Your task to perform on an android device: open app "The Home Depot" (install if not already installed) and go to login screen Image 0: 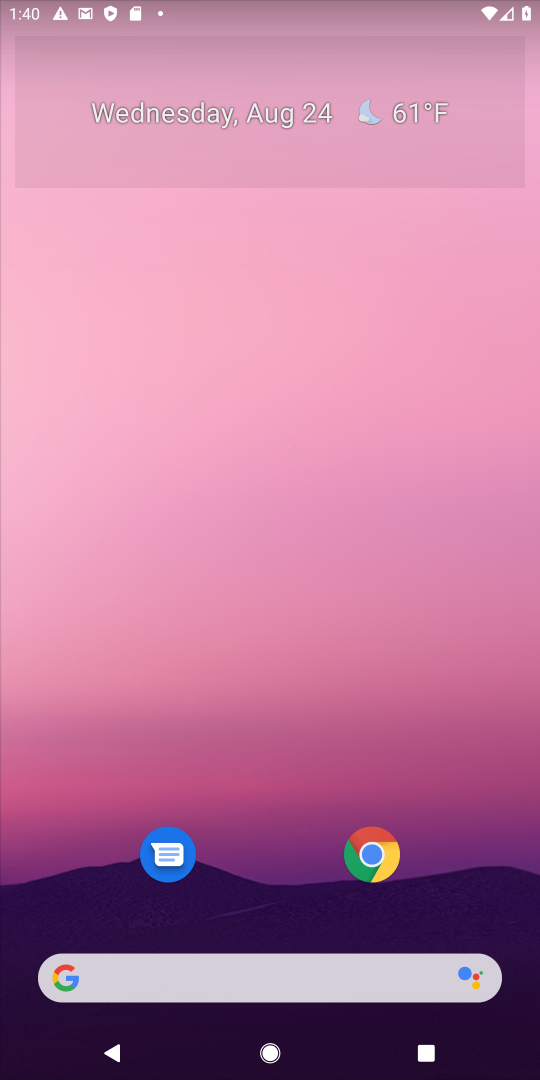
Step 0: press home button
Your task to perform on an android device: open app "The Home Depot" (install if not already installed) and go to login screen Image 1: 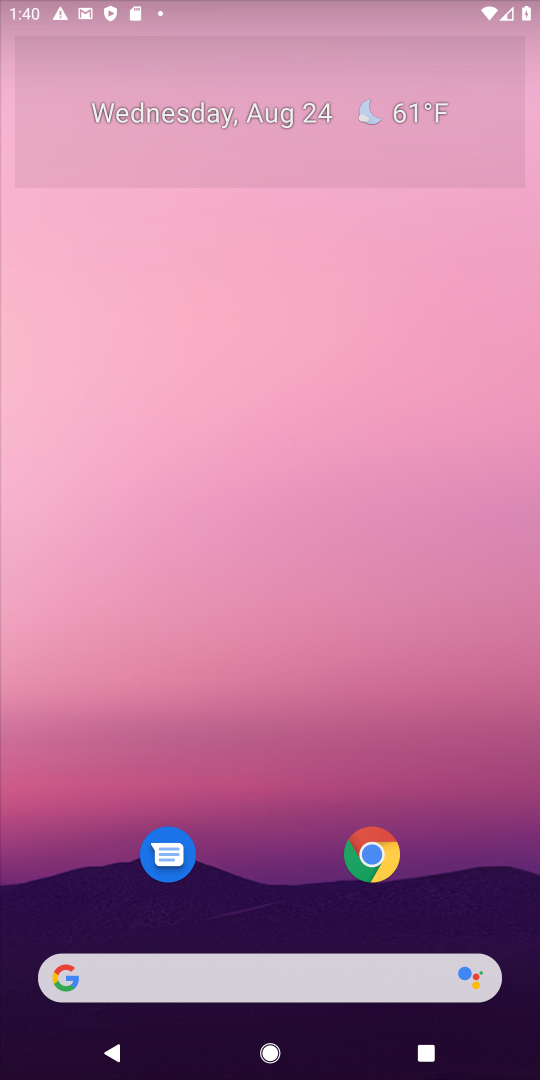
Step 1: drag from (446, 834) to (423, 153)
Your task to perform on an android device: open app "The Home Depot" (install if not already installed) and go to login screen Image 2: 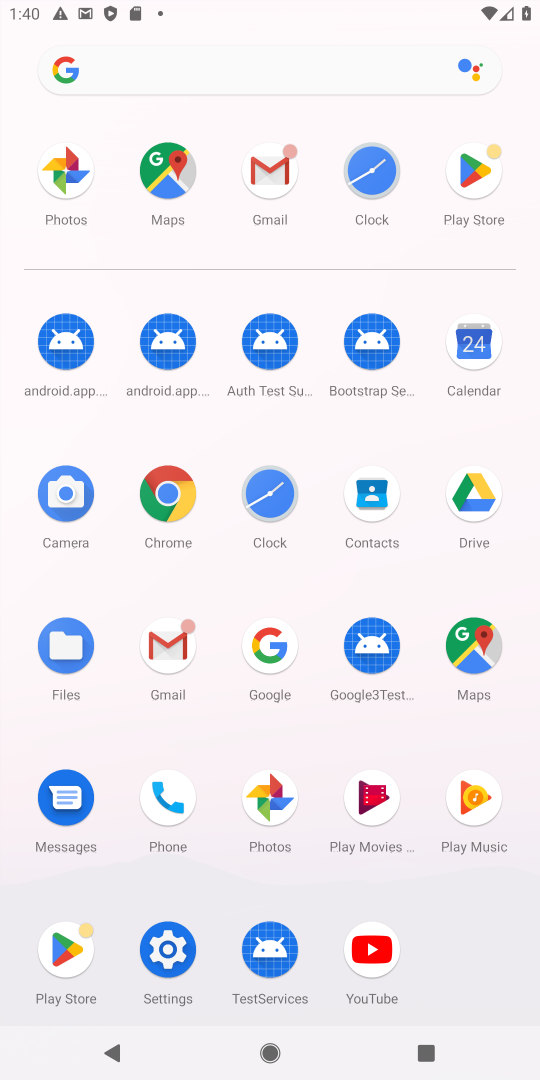
Step 2: click (490, 178)
Your task to perform on an android device: open app "The Home Depot" (install if not already installed) and go to login screen Image 3: 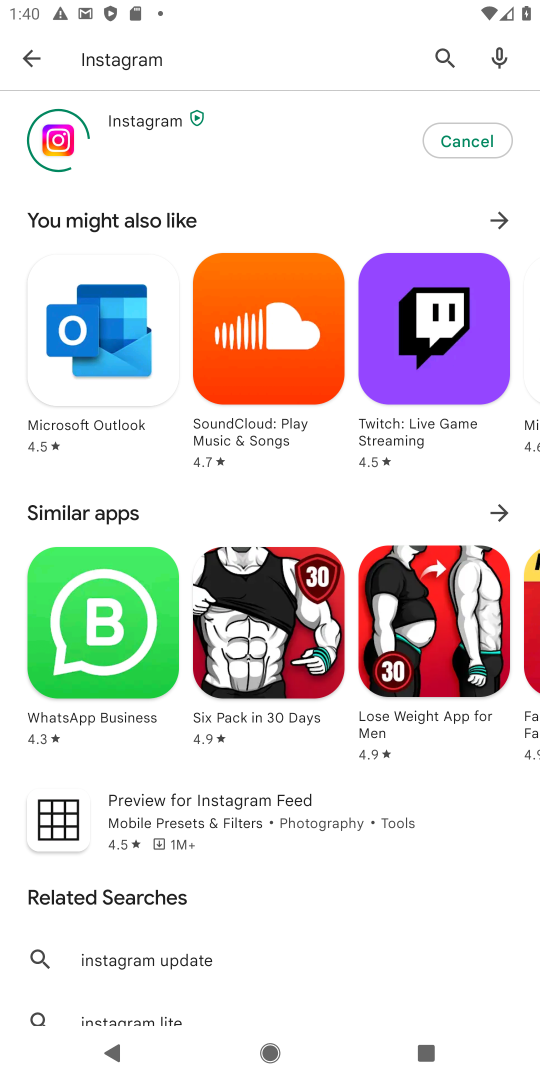
Step 3: press back button
Your task to perform on an android device: open app "The Home Depot" (install if not already installed) and go to login screen Image 4: 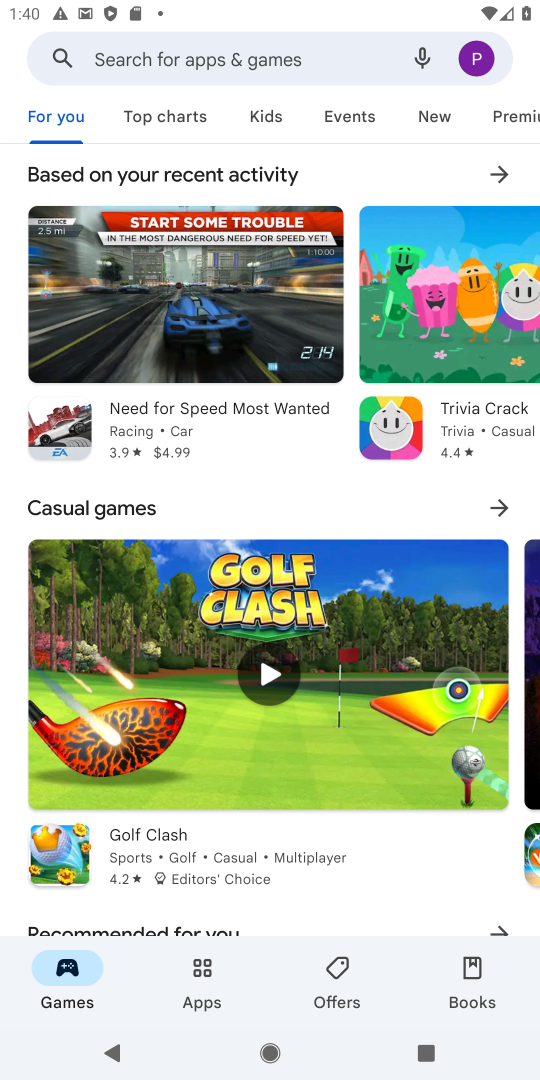
Step 4: click (207, 54)
Your task to perform on an android device: open app "The Home Depot" (install if not already installed) and go to login screen Image 5: 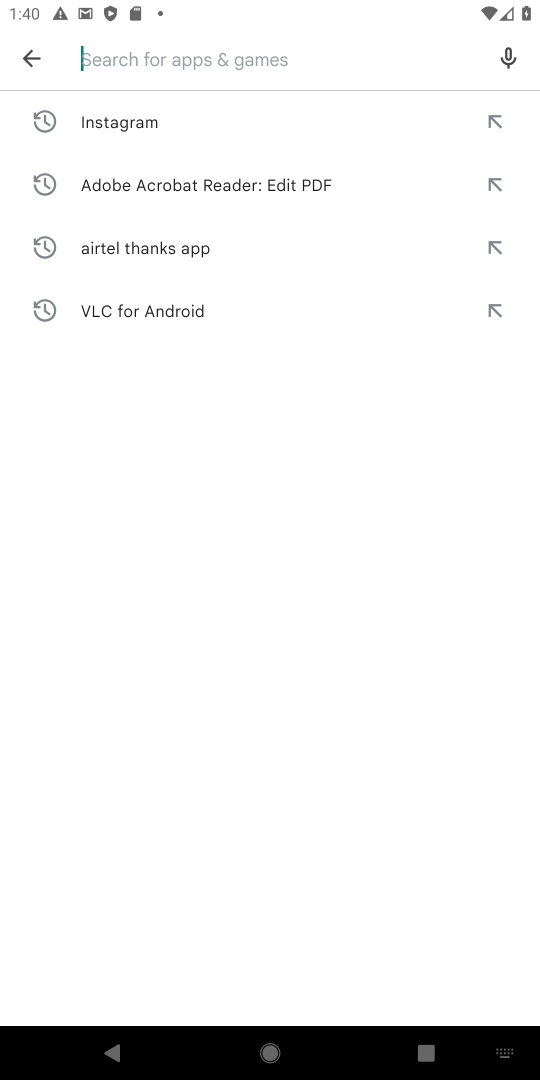
Step 5: type "The Home Depot"
Your task to perform on an android device: open app "The Home Depot" (install if not already installed) and go to login screen Image 6: 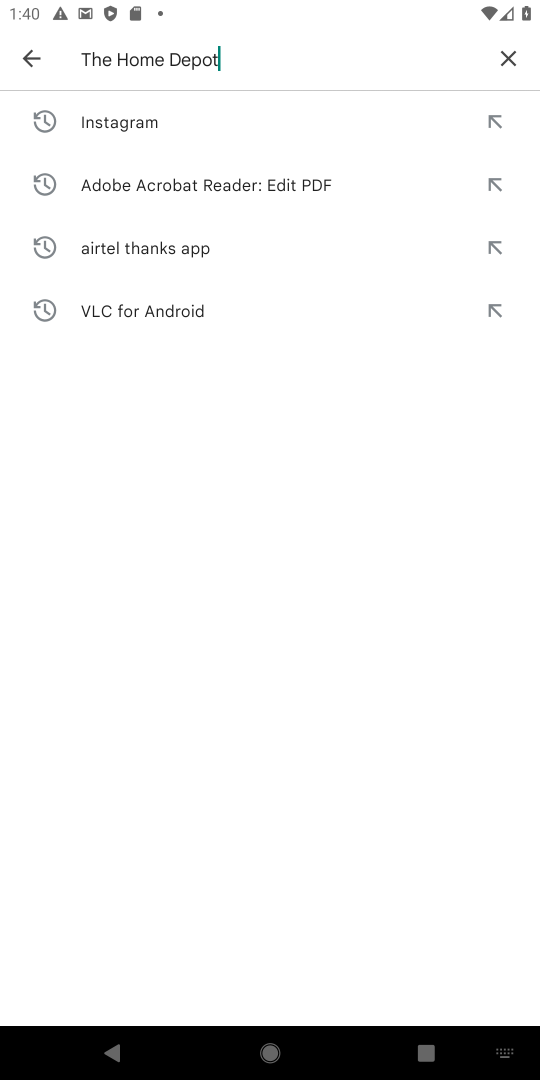
Step 6: press enter
Your task to perform on an android device: open app "The Home Depot" (install if not already installed) and go to login screen Image 7: 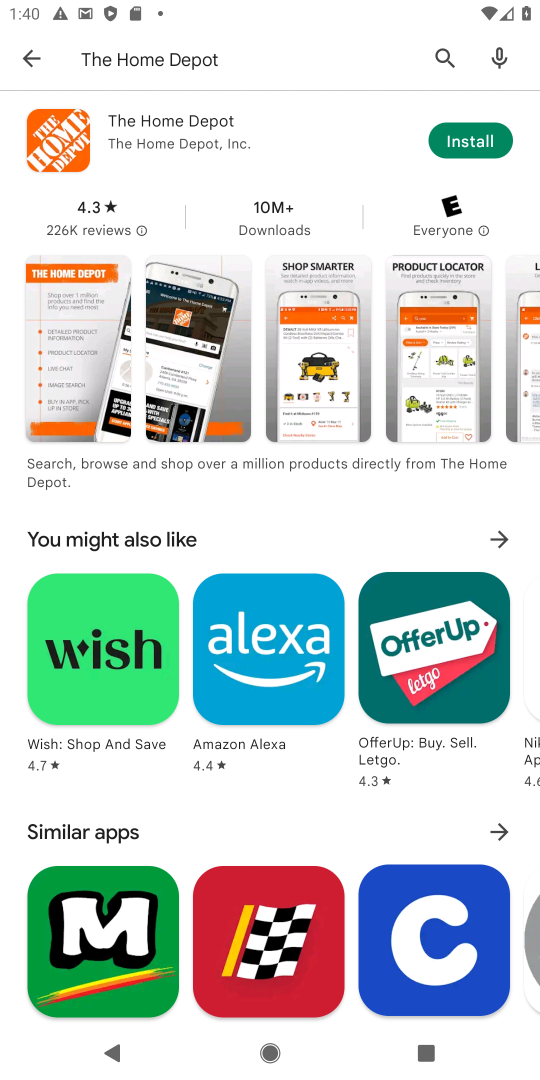
Step 7: click (502, 142)
Your task to perform on an android device: open app "The Home Depot" (install if not already installed) and go to login screen Image 8: 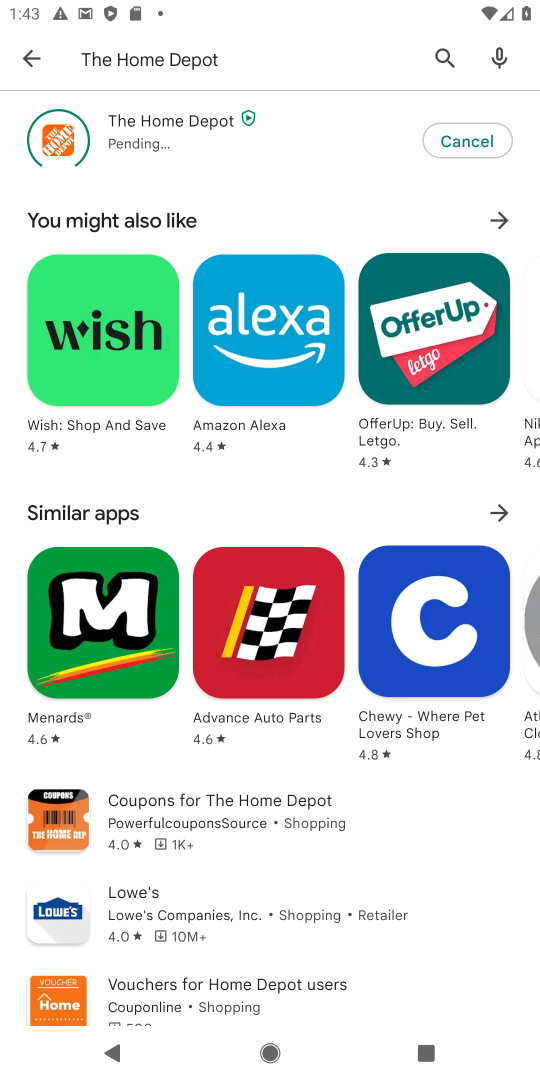
Step 8: task complete